Your task to perform on an android device: turn off notifications in google photos Image 0: 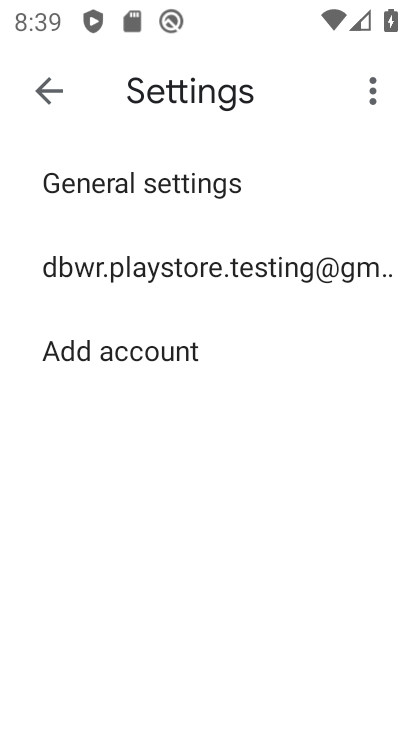
Step 0: press home button
Your task to perform on an android device: turn off notifications in google photos Image 1: 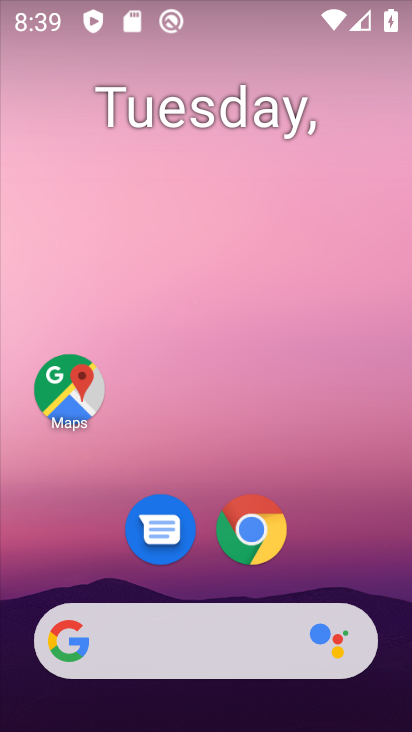
Step 1: drag from (330, 634) to (386, 121)
Your task to perform on an android device: turn off notifications in google photos Image 2: 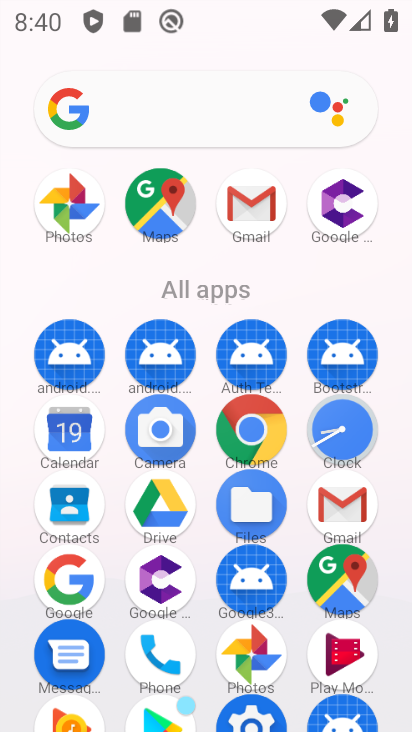
Step 2: click (253, 653)
Your task to perform on an android device: turn off notifications in google photos Image 3: 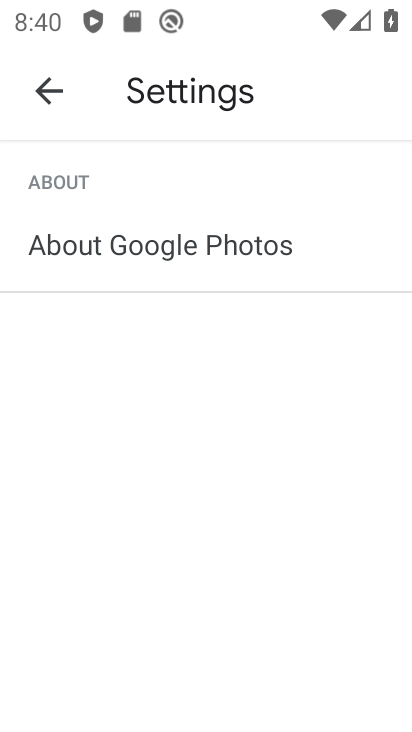
Step 3: press back button
Your task to perform on an android device: turn off notifications in google photos Image 4: 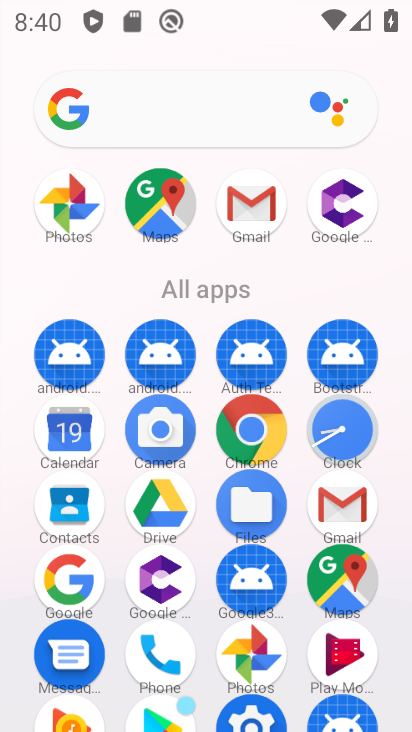
Step 4: click (234, 649)
Your task to perform on an android device: turn off notifications in google photos Image 5: 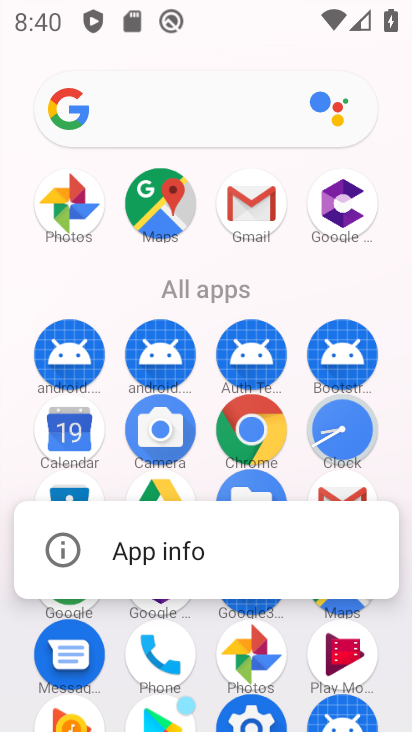
Step 5: click (222, 639)
Your task to perform on an android device: turn off notifications in google photos Image 6: 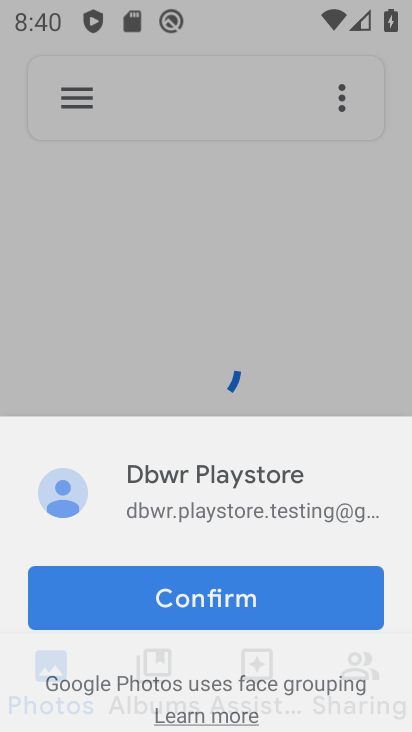
Step 6: click (64, 98)
Your task to perform on an android device: turn off notifications in google photos Image 7: 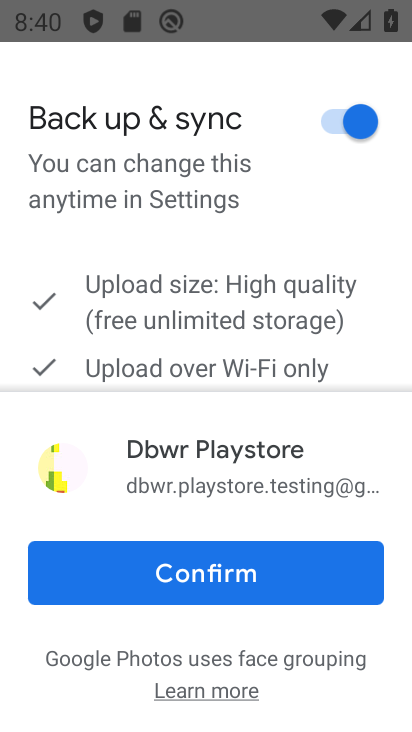
Step 7: click (235, 587)
Your task to perform on an android device: turn off notifications in google photos Image 8: 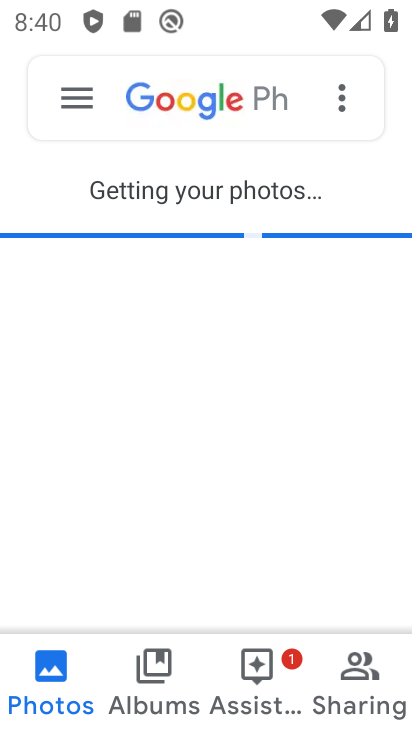
Step 8: click (55, 93)
Your task to perform on an android device: turn off notifications in google photos Image 9: 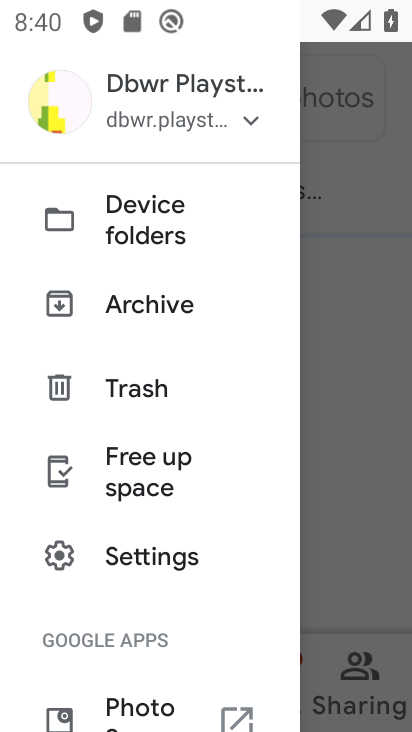
Step 9: click (184, 558)
Your task to perform on an android device: turn off notifications in google photos Image 10: 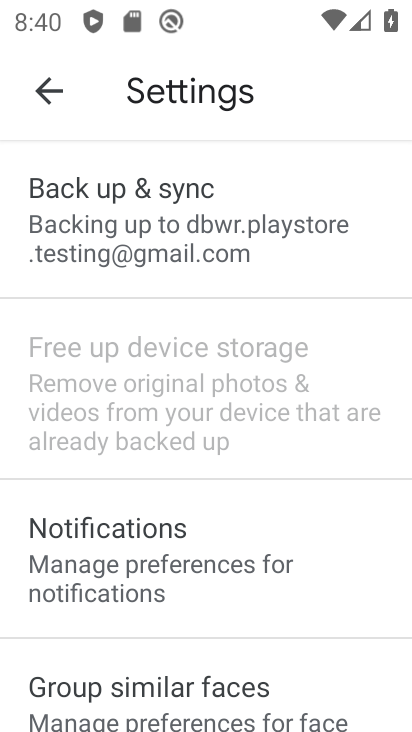
Step 10: click (231, 599)
Your task to perform on an android device: turn off notifications in google photos Image 11: 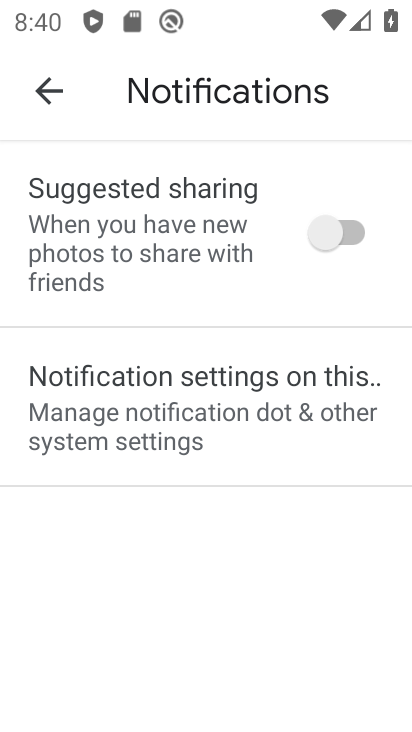
Step 11: click (346, 387)
Your task to perform on an android device: turn off notifications in google photos Image 12: 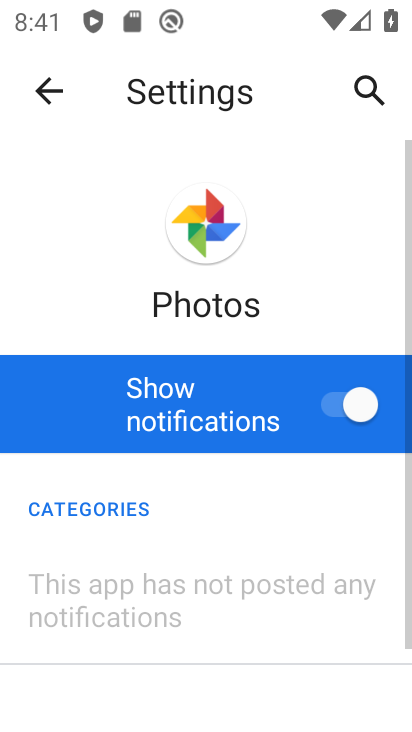
Step 12: click (340, 401)
Your task to perform on an android device: turn off notifications in google photos Image 13: 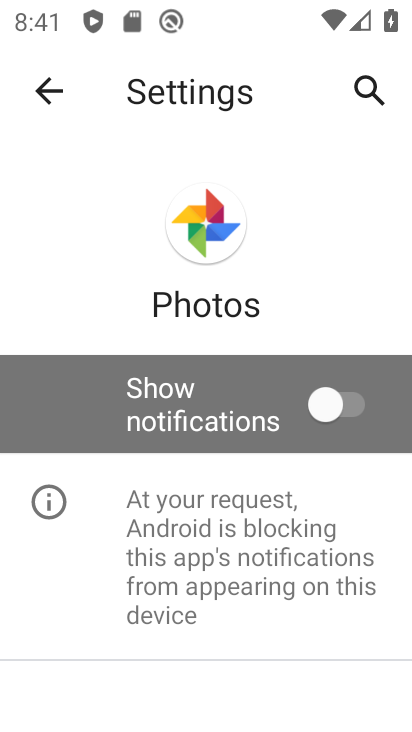
Step 13: task complete